Your task to perform on an android device: Add "razer nari" to the cart on amazon.com Image 0: 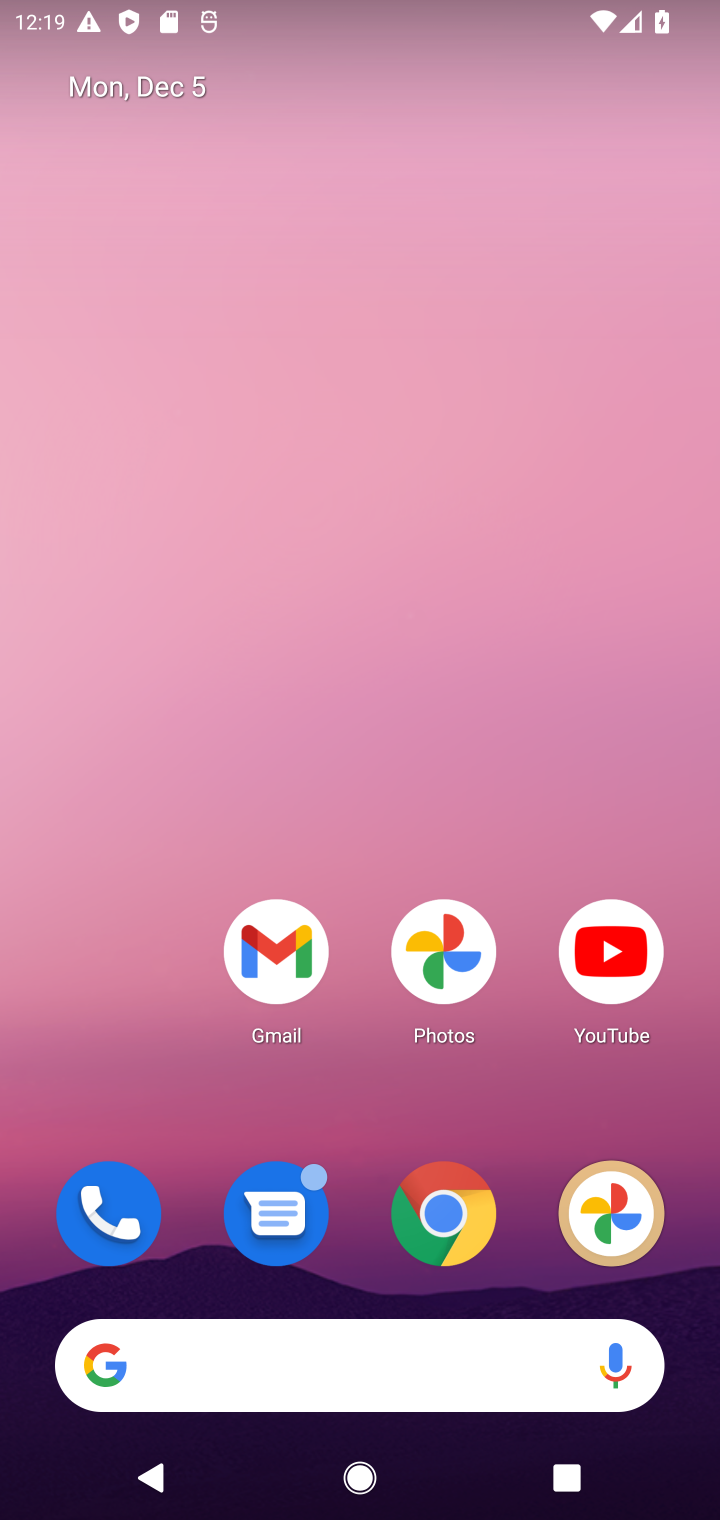
Step 0: click (448, 1215)
Your task to perform on an android device: Add "razer nari" to the cart on amazon.com Image 1: 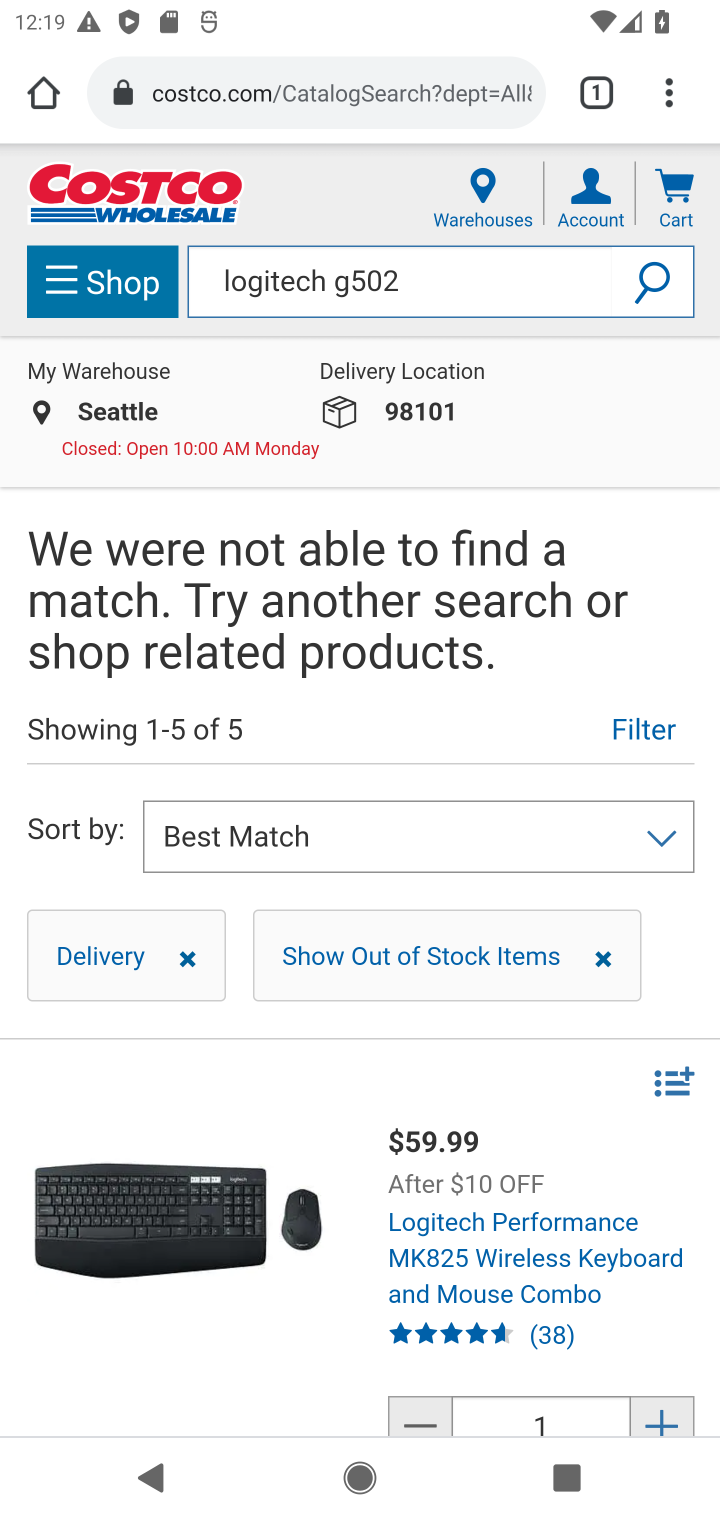
Step 1: click (269, 86)
Your task to perform on an android device: Add "razer nari" to the cart on amazon.com Image 2: 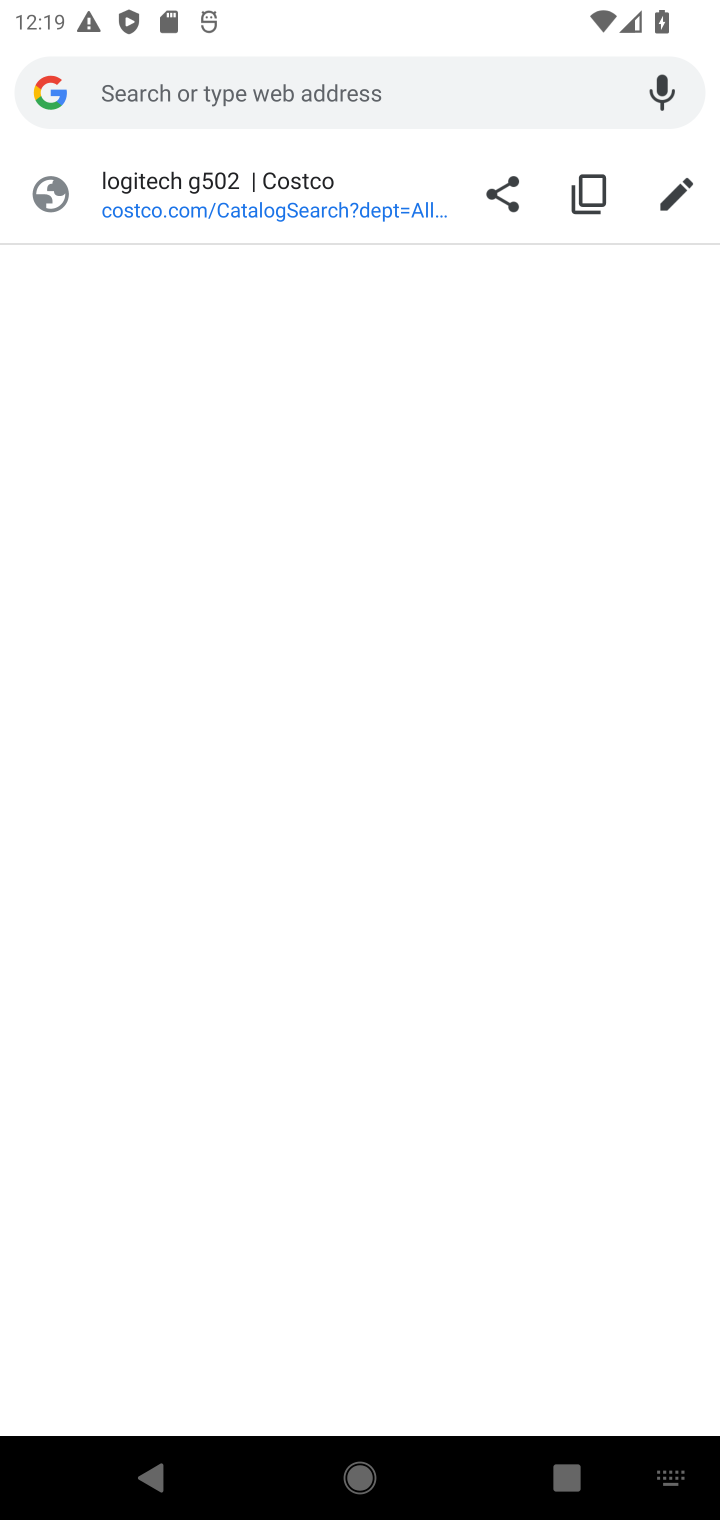
Step 2: type "amazon.com"
Your task to perform on an android device: Add "razer nari" to the cart on amazon.com Image 3: 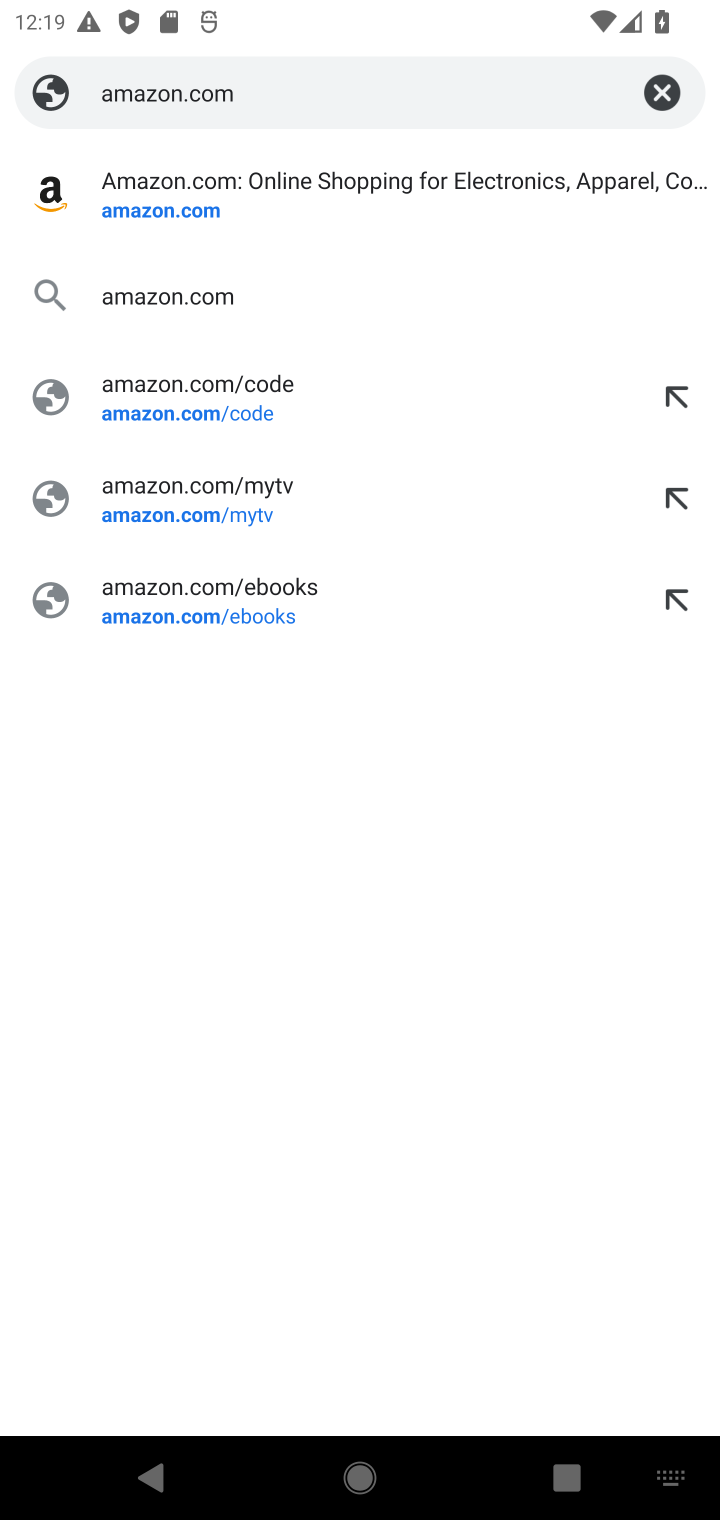
Step 3: click (152, 218)
Your task to perform on an android device: Add "razer nari" to the cart on amazon.com Image 4: 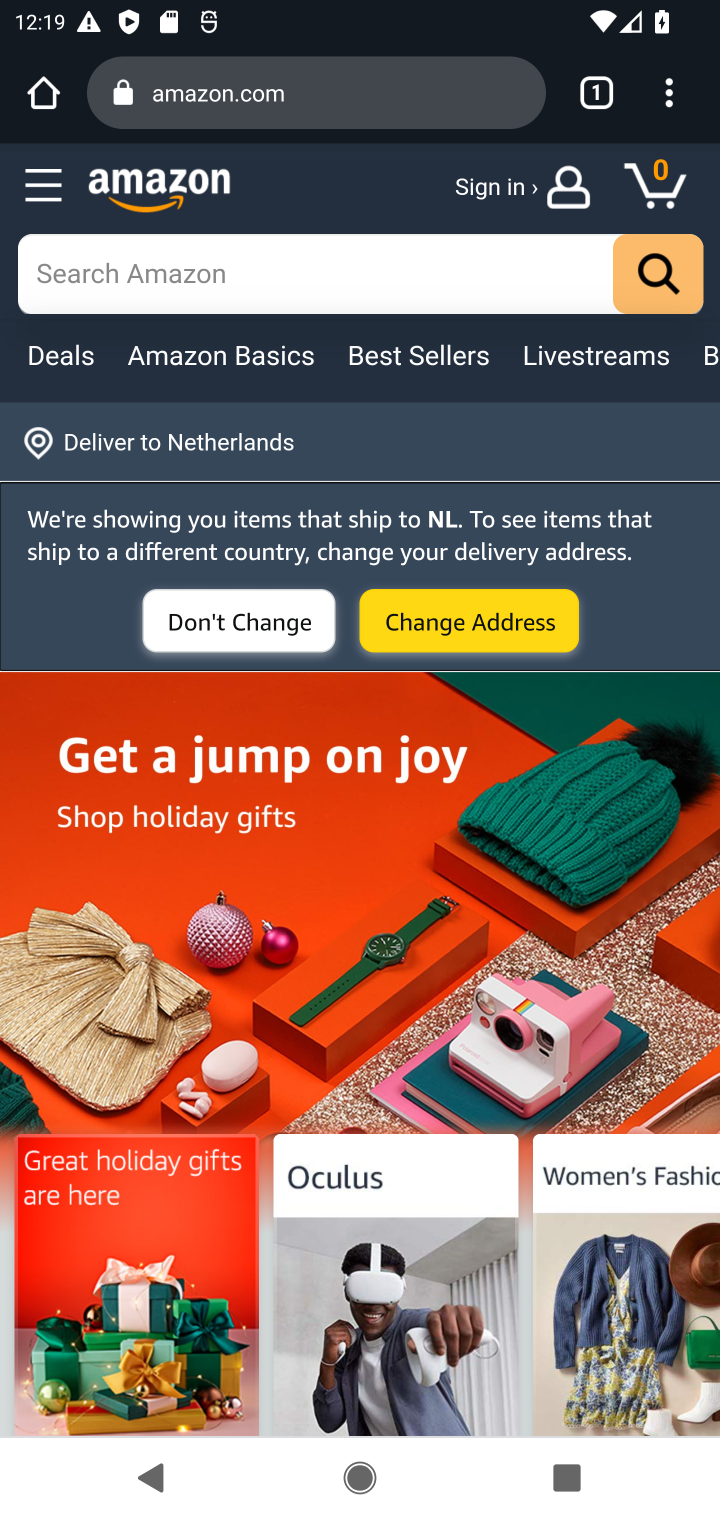
Step 4: click (120, 292)
Your task to perform on an android device: Add "razer nari" to the cart on amazon.com Image 5: 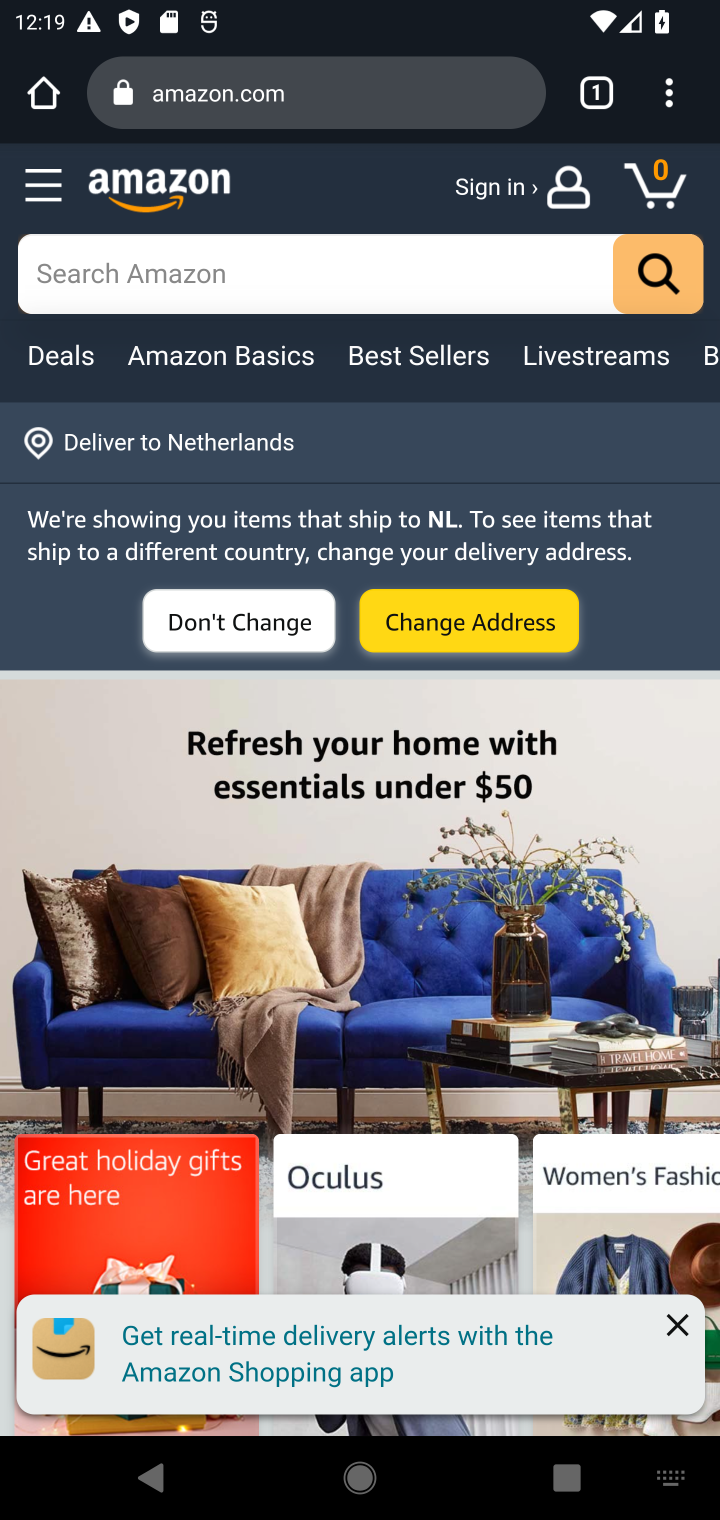
Step 5: type "razer nari"
Your task to perform on an android device: Add "razer nari" to the cart on amazon.com Image 6: 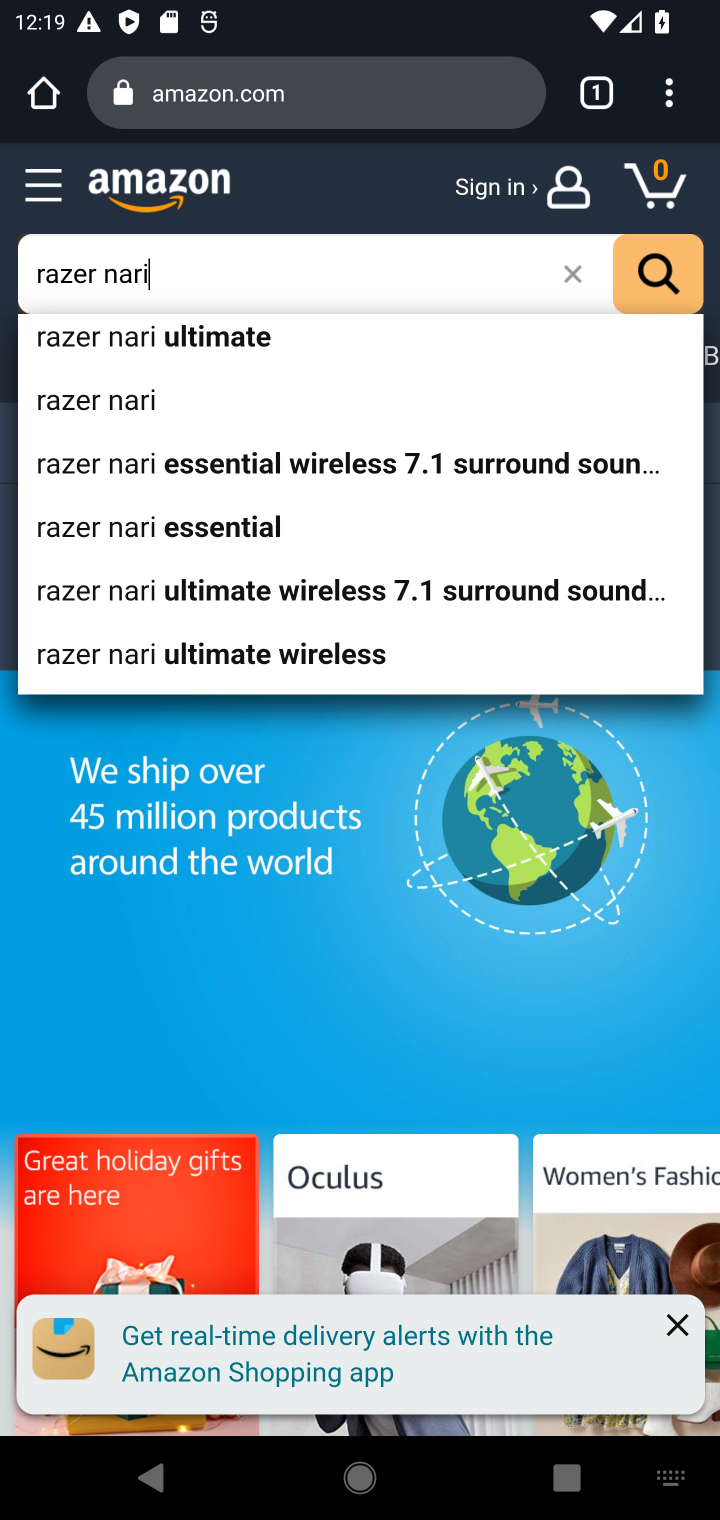
Step 6: click (132, 403)
Your task to perform on an android device: Add "razer nari" to the cart on amazon.com Image 7: 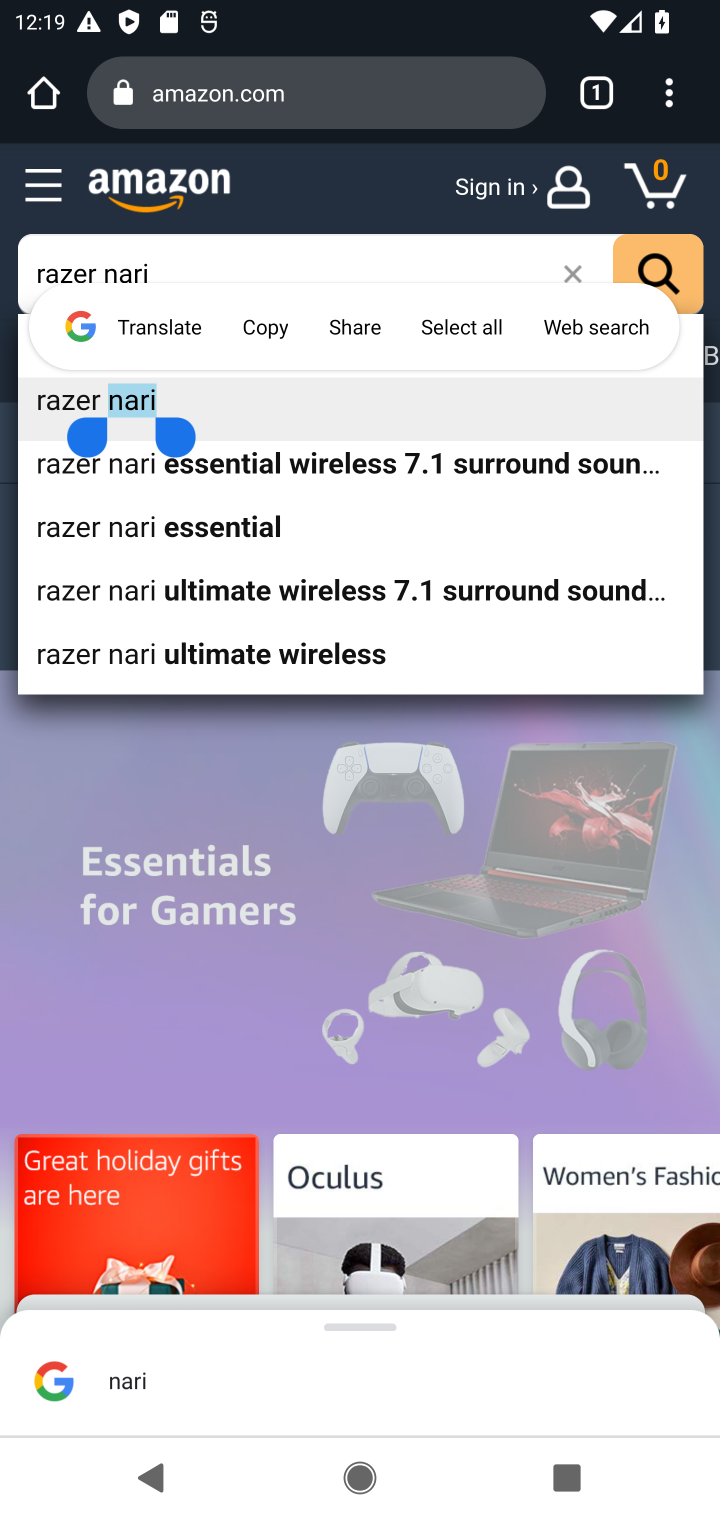
Step 7: click (77, 410)
Your task to perform on an android device: Add "razer nari" to the cart on amazon.com Image 8: 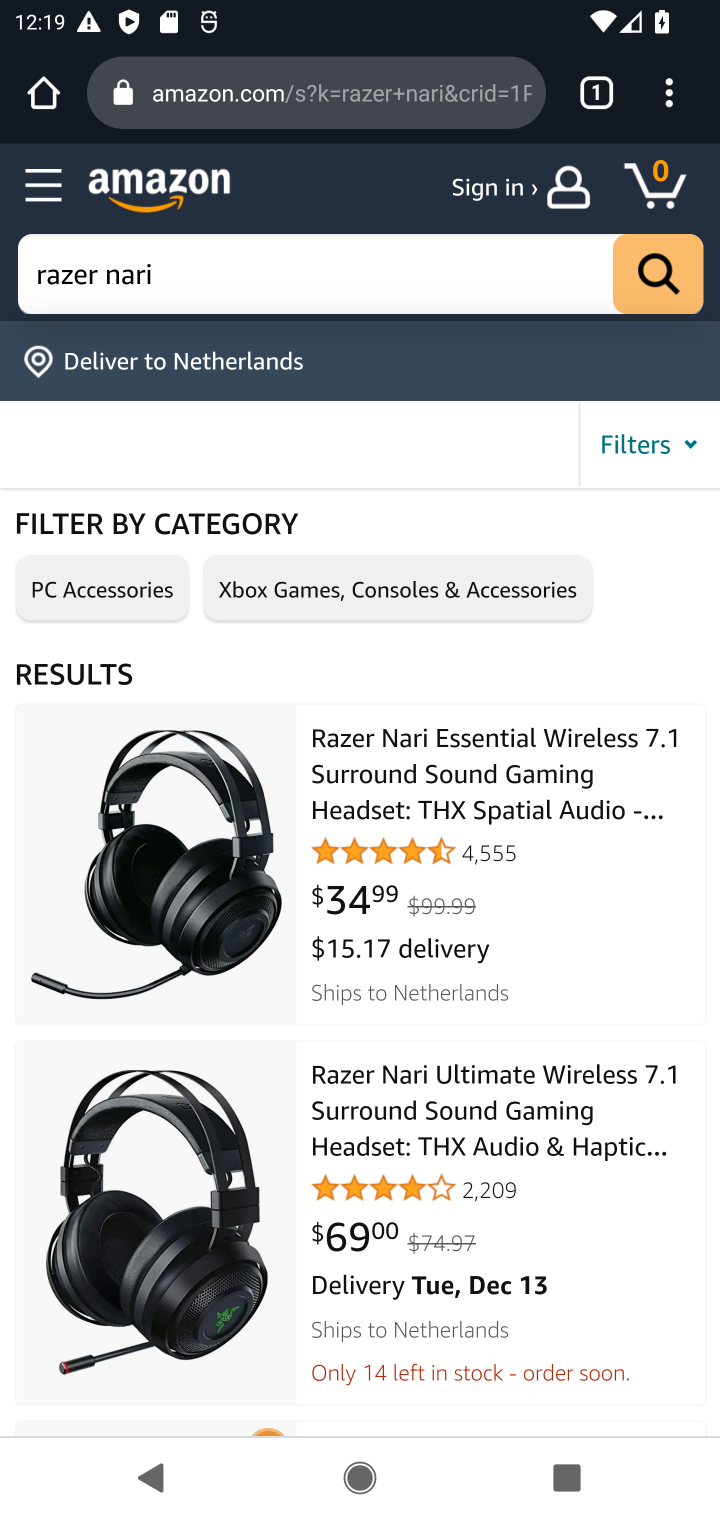
Step 8: click (396, 804)
Your task to perform on an android device: Add "razer nari" to the cart on amazon.com Image 9: 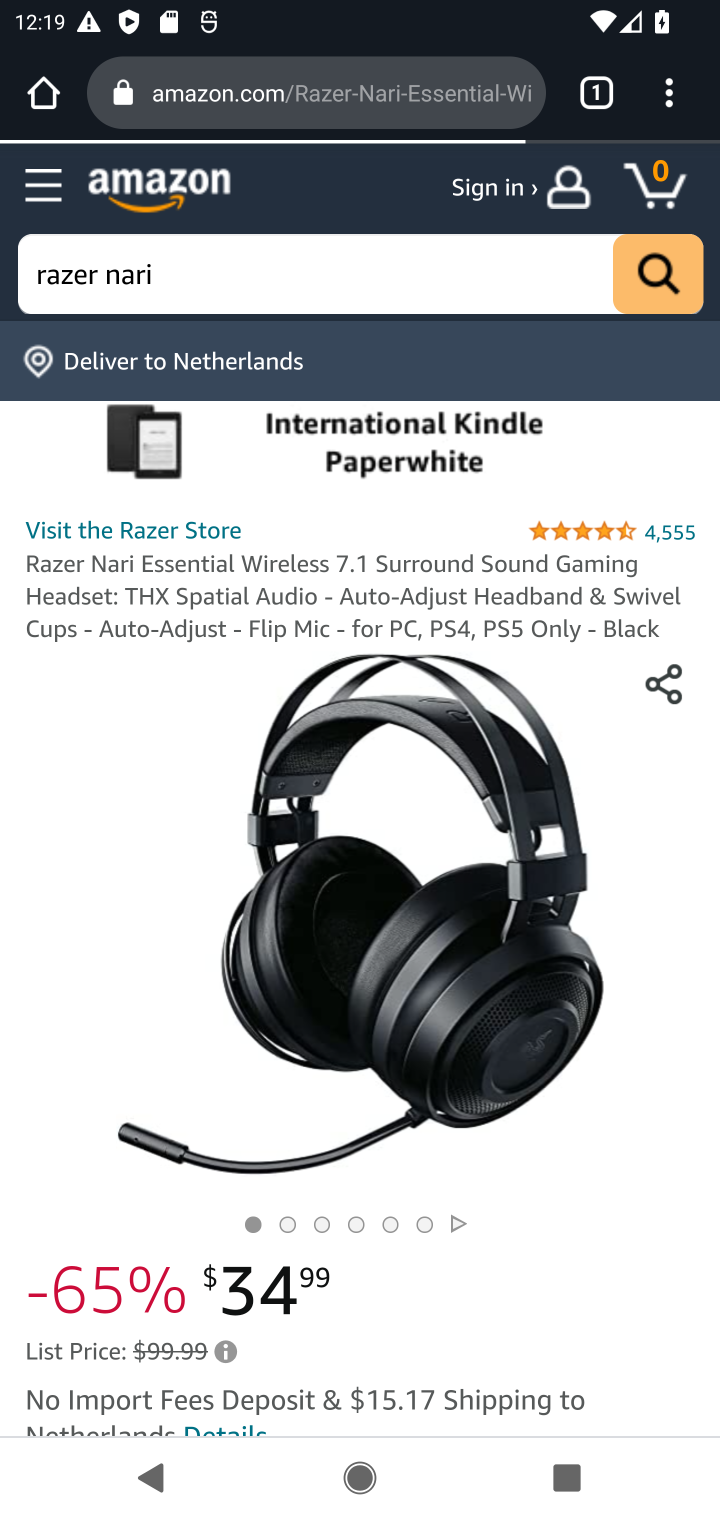
Step 9: drag from (347, 1076) to (318, 542)
Your task to perform on an android device: Add "razer nari" to the cart on amazon.com Image 10: 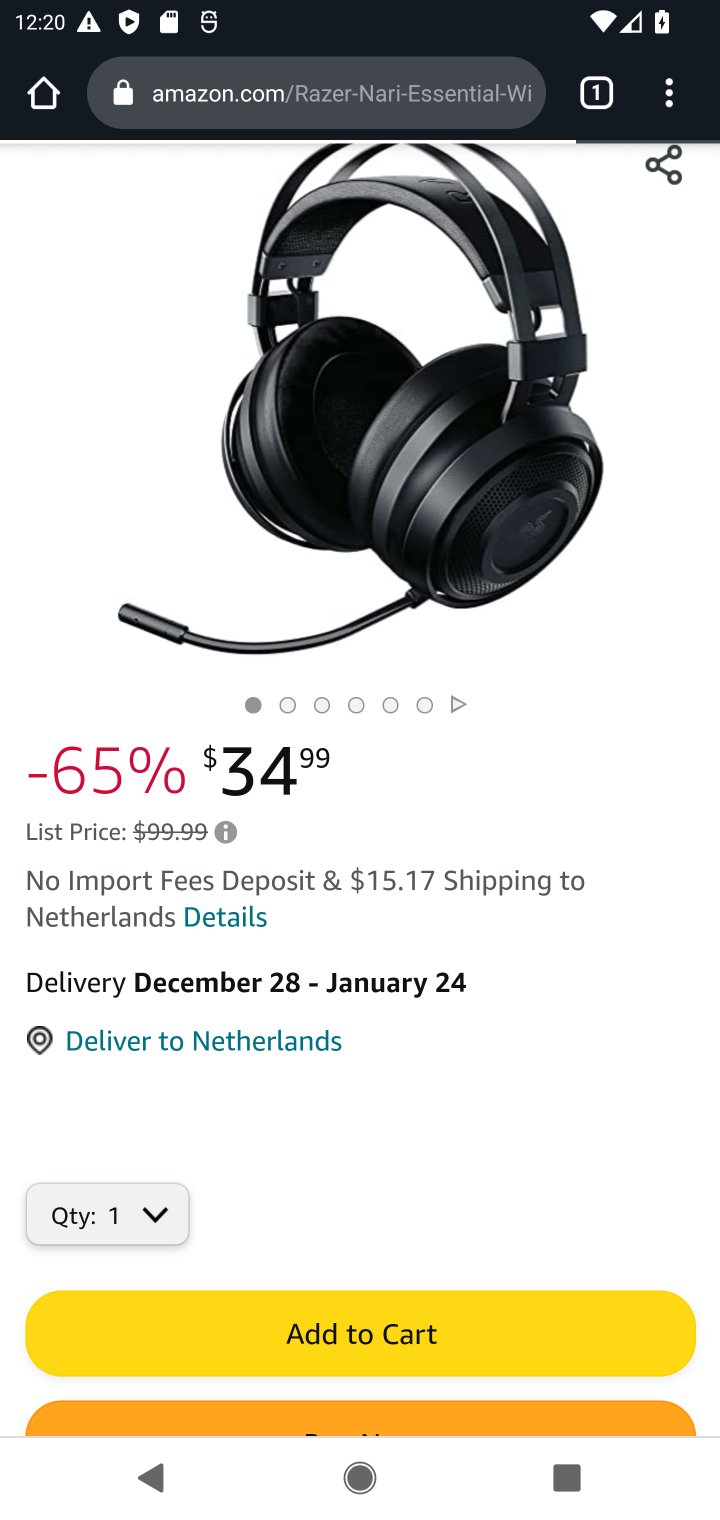
Step 10: drag from (323, 710) to (323, 519)
Your task to perform on an android device: Add "razer nari" to the cart on amazon.com Image 11: 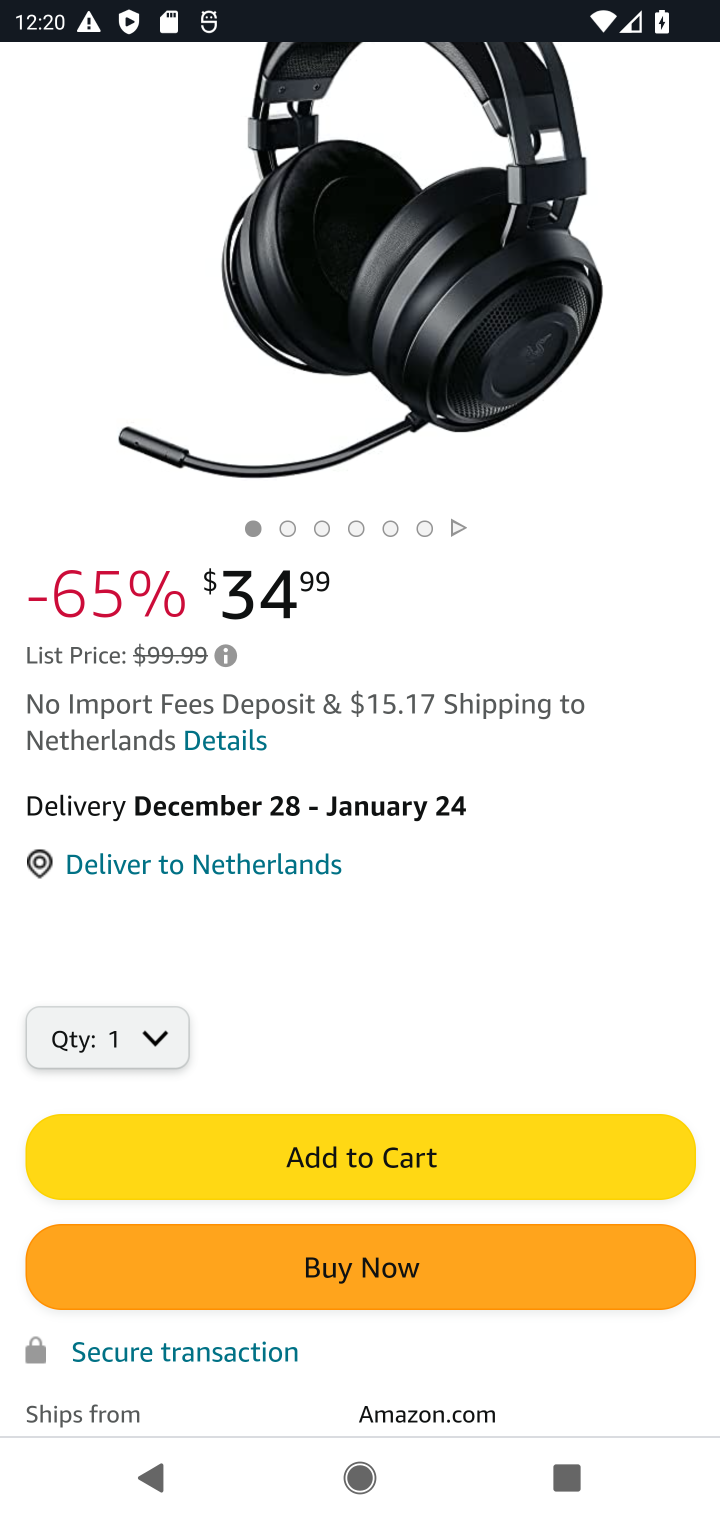
Step 11: click (319, 1157)
Your task to perform on an android device: Add "razer nari" to the cart on amazon.com Image 12: 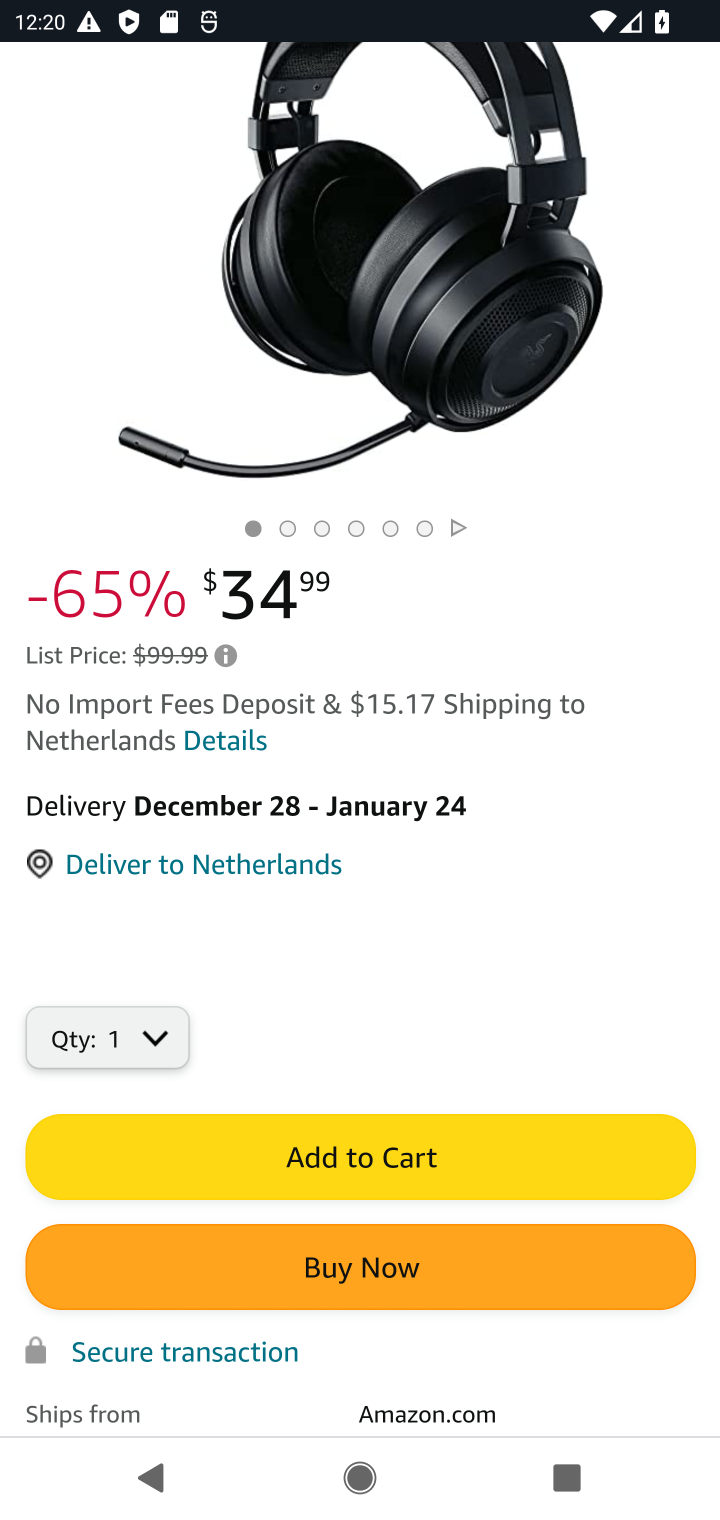
Step 12: click (319, 1157)
Your task to perform on an android device: Add "razer nari" to the cart on amazon.com Image 13: 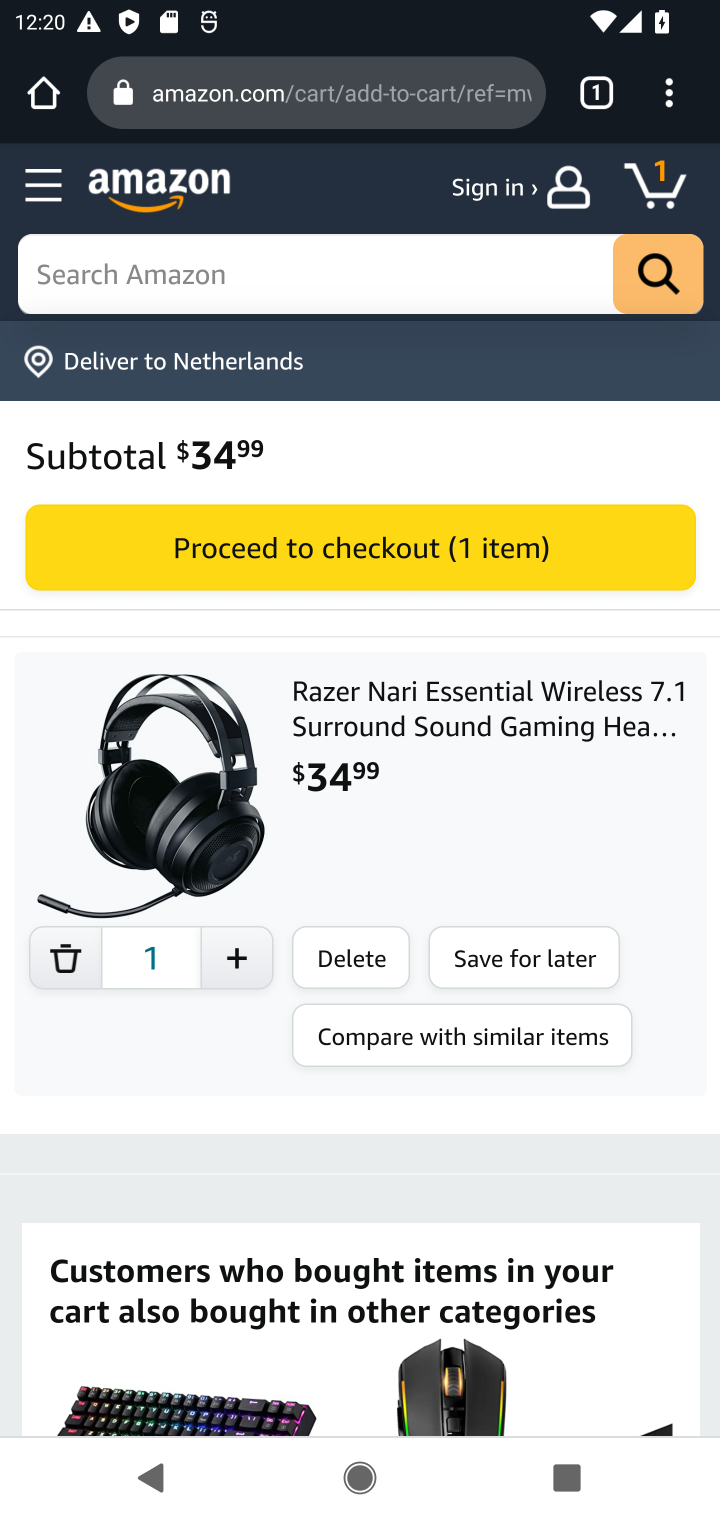
Step 13: task complete